Your task to perform on an android device: Play the last video I watched on Youtube Image 0: 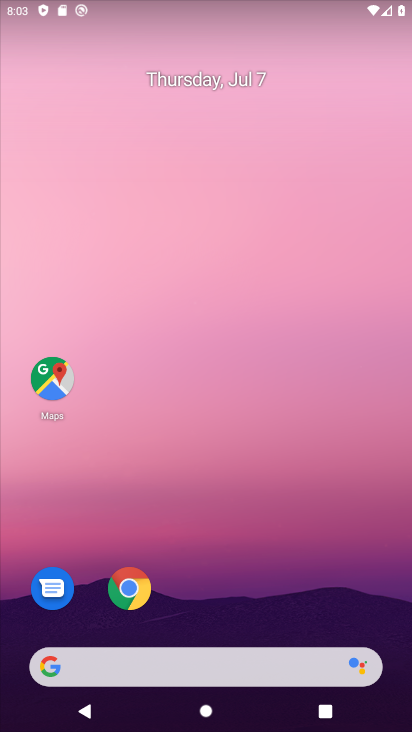
Step 0: drag from (185, 664) to (266, 60)
Your task to perform on an android device: Play the last video I watched on Youtube Image 1: 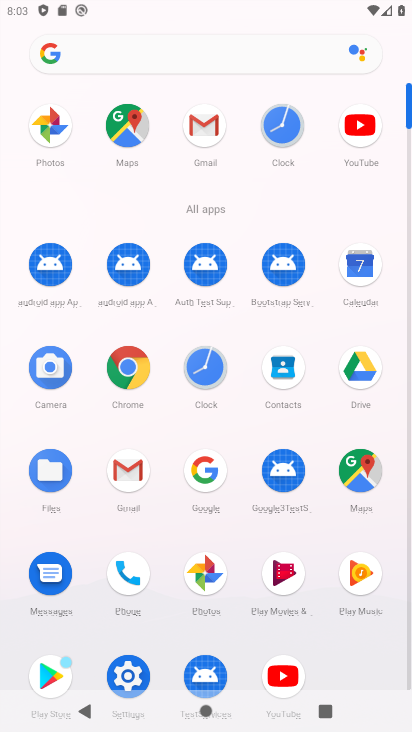
Step 1: click (282, 674)
Your task to perform on an android device: Play the last video I watched on Youtube Image 2: 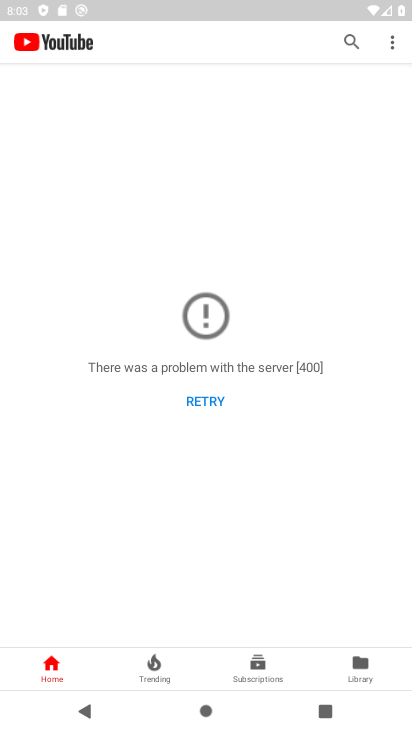
Step 2: click (365, 666)
Your task to perform on an android device: Play the last video I watched on Youtube Image 3: 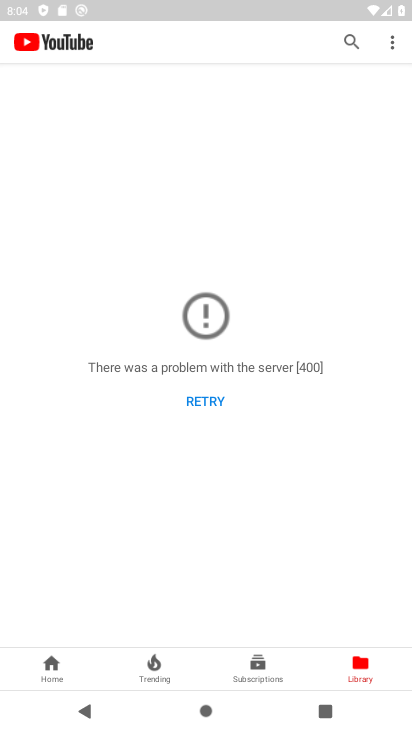
Step 3: task complete